Your task to perform on an android device: Add "razer huntsman" to the cart on bestbuy.com Image 0: 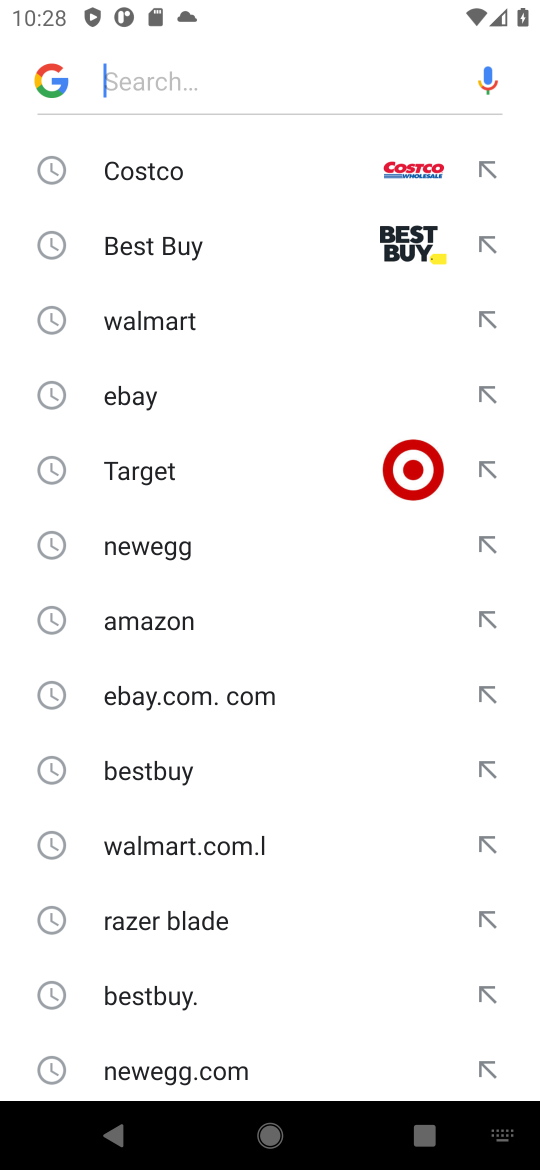
Step 0: press home button
Your task to perform on an android device: Add "razer huntsman" to the cart on bestbuy.com Image 1: 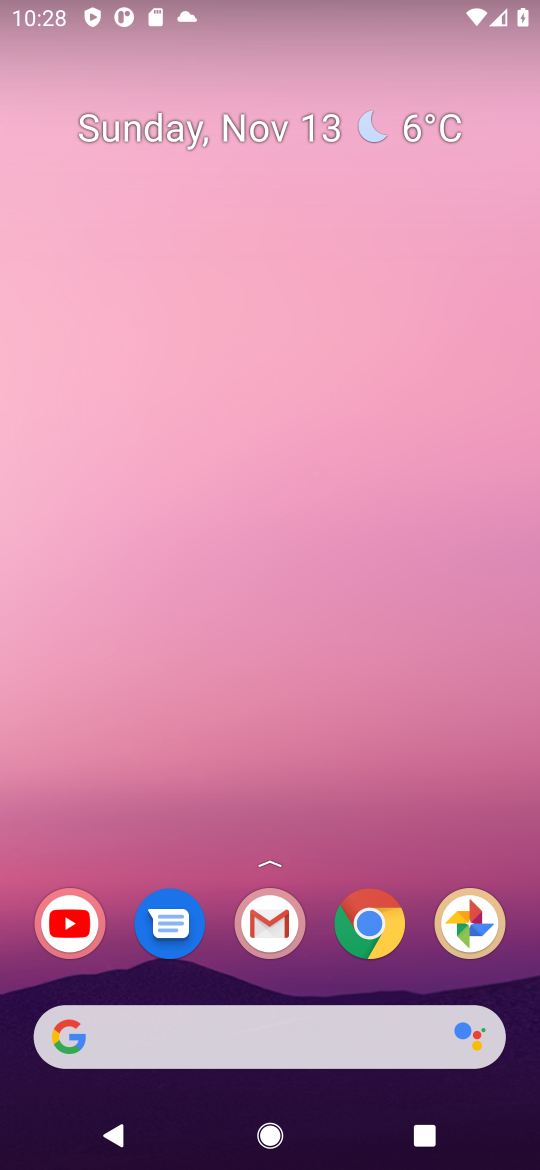
Step 1: click (363, 915)
Your task to perform on an android device: Add "razer huntsman" to the cart on bestbuy.com Image 2: 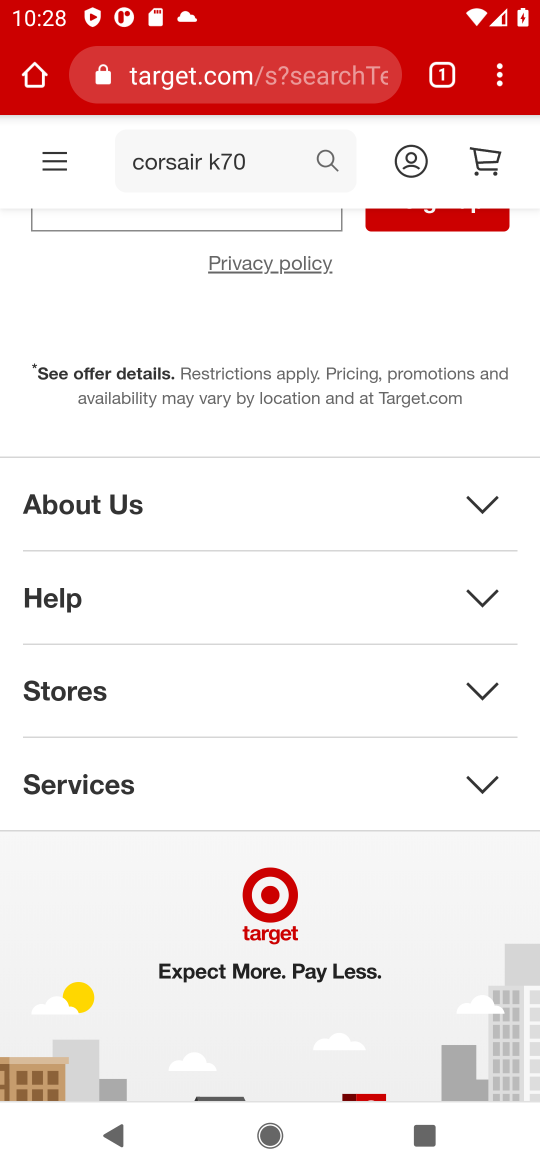
Step 2: click (299, 52)
Your task to perform on an android device: Add "razer huntsman" to the cart on bestbuy.com Image 3: 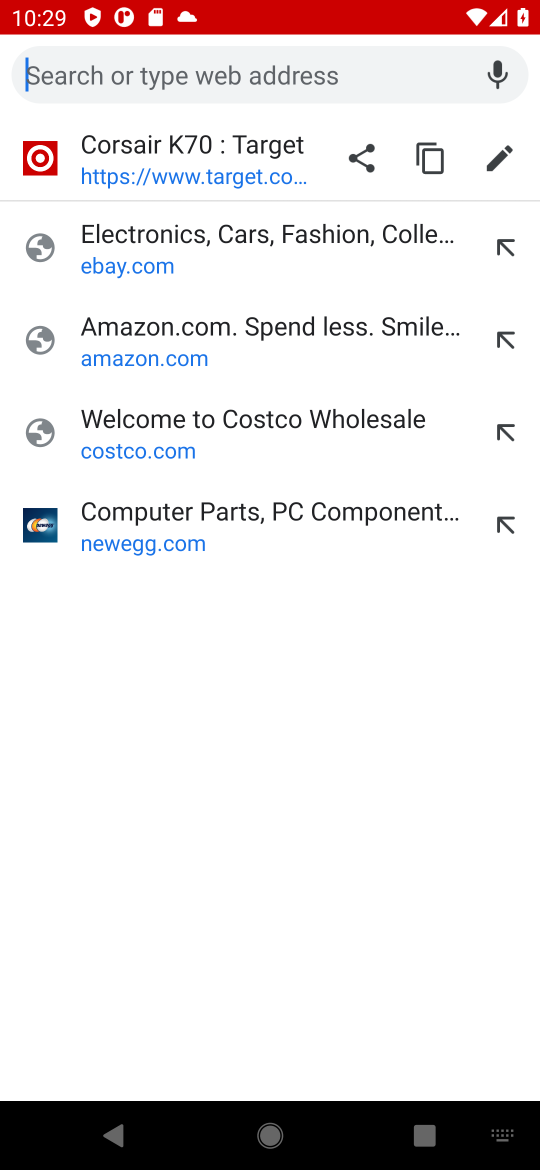
Step 3: type "bestbuy.com"
Your task to perform on an android device: Add "razer huntsman" to the cart on bestbuy.com Image 4: 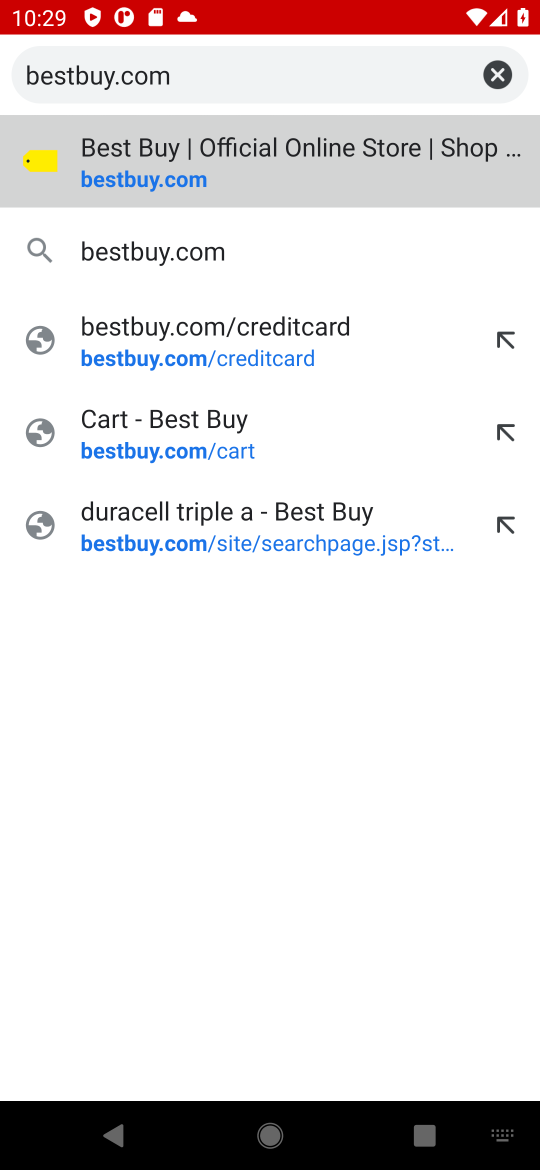
Step 4: press enter
Your task to perform on an android device: Add "razer huntsman" to the cart on bestbuy.com Image 5: 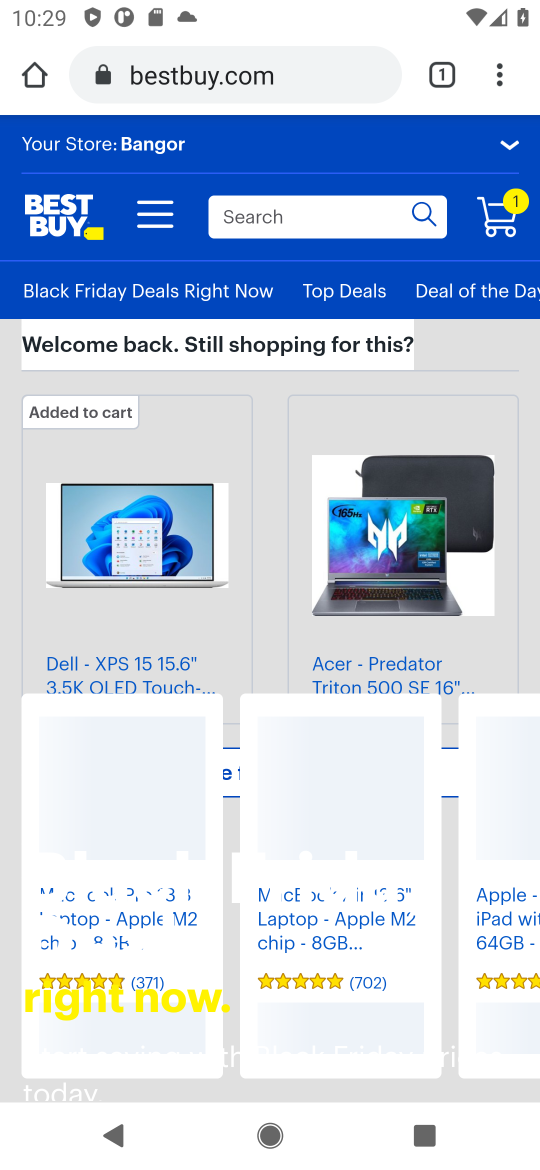
Step 5: click (342, 210)
Your task to perform on an android device: Add "razer huntsman" to the cart on bestbuy.com Image 6: 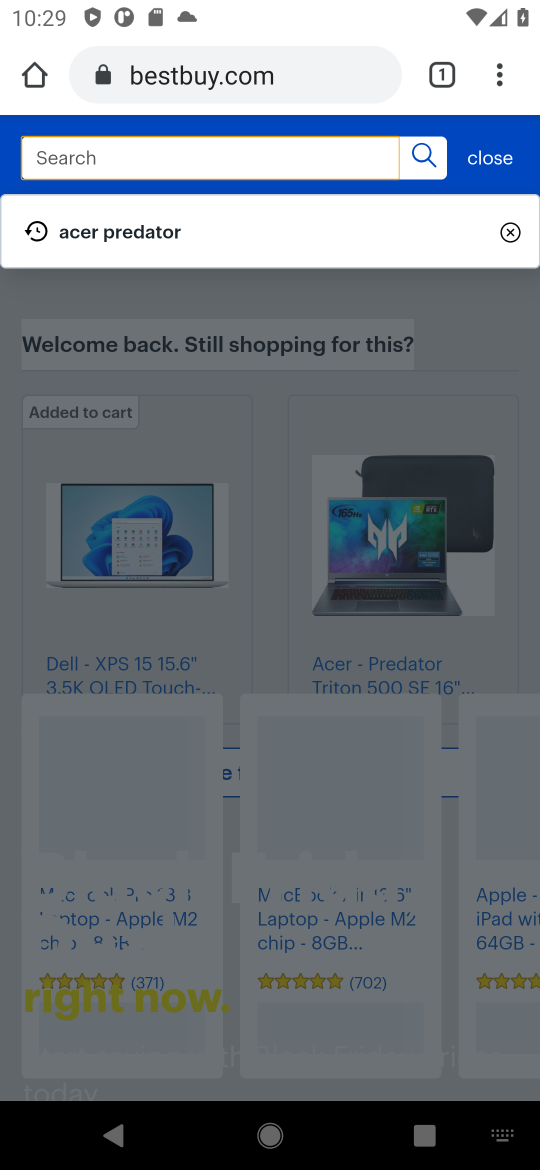
Step 6: press enter
Your task to perform on an android device: Add "razer huntsman" to the cart on bestbuy.com Image 7: 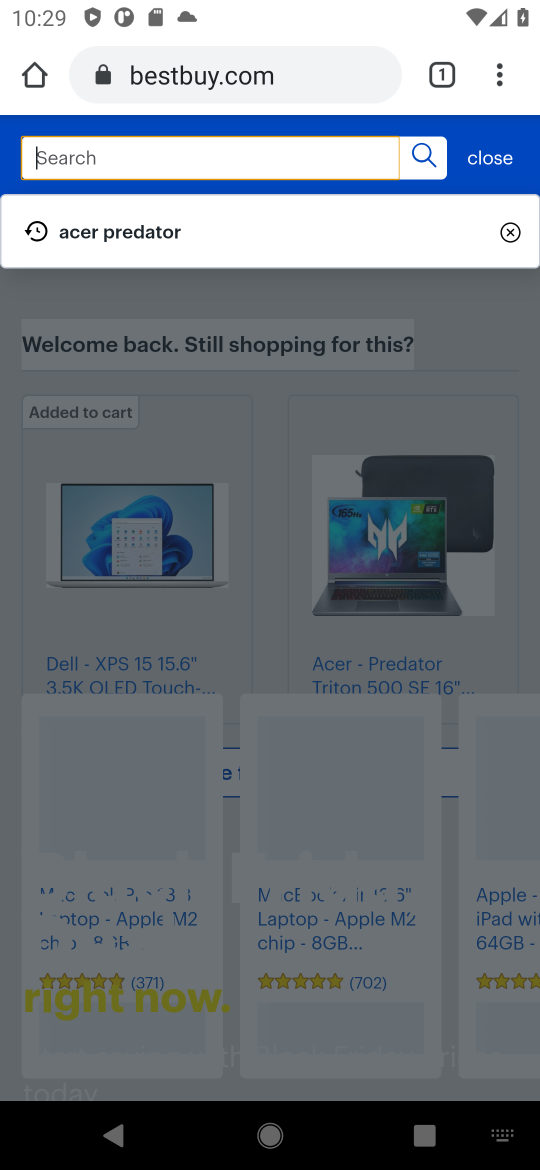
Step 7: type "razer huntsman"
Your task to perform on an android device: Add "razer huntsman" to the cart on bestbuy.com Image 8: 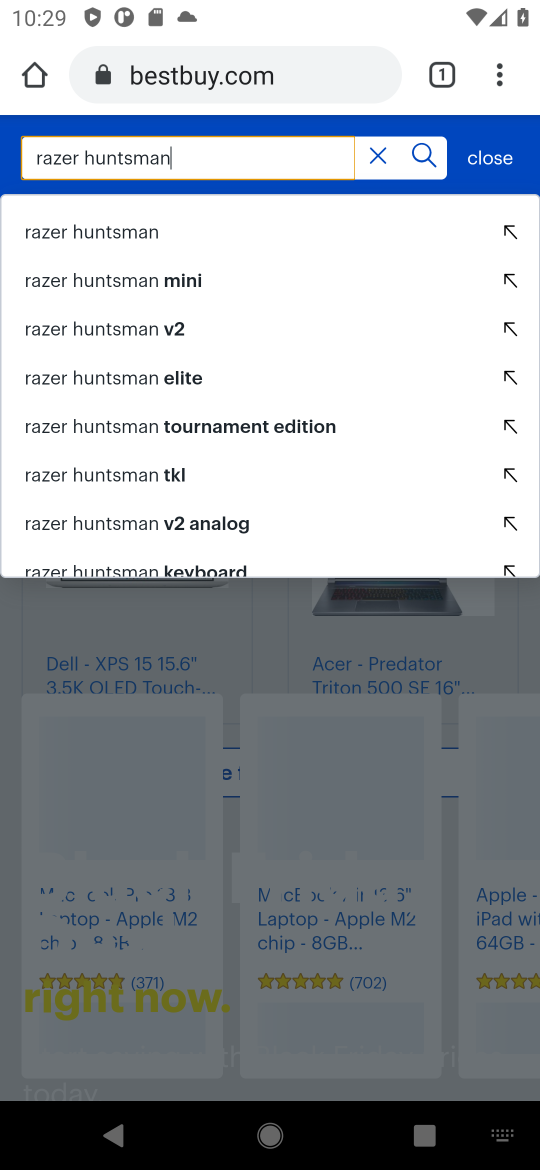
Step 8: click (107, 237)
Your task to perform on an android device: Add "razer huntsman" to the cart on bestbuy.com Image 9: 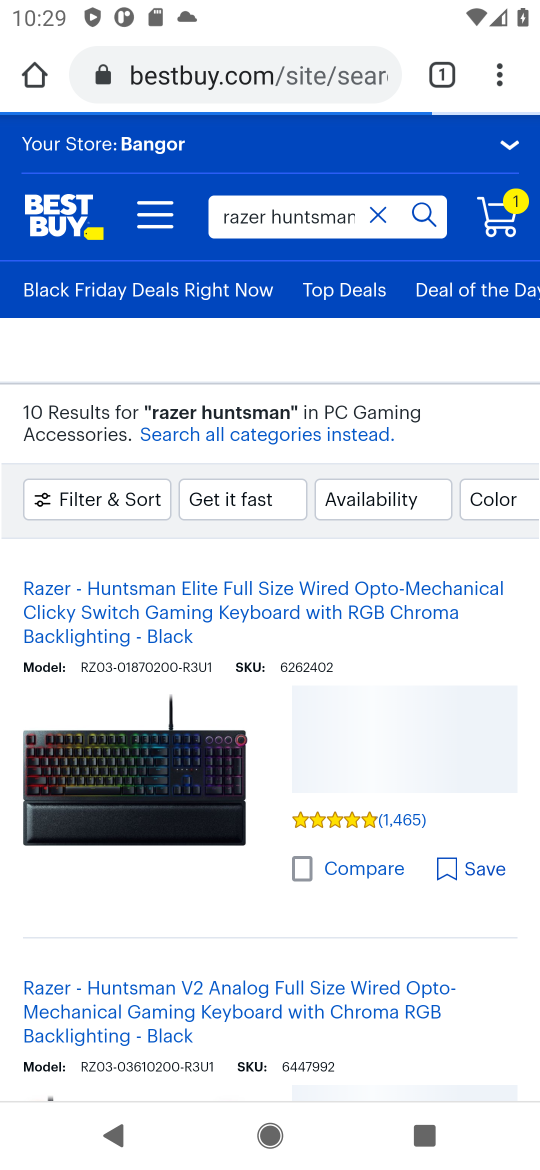
Step 9: click (108, 799)
Your task to perform on an android device: Add "razer huntsman" to the cart on bestbuy.com Image 10: 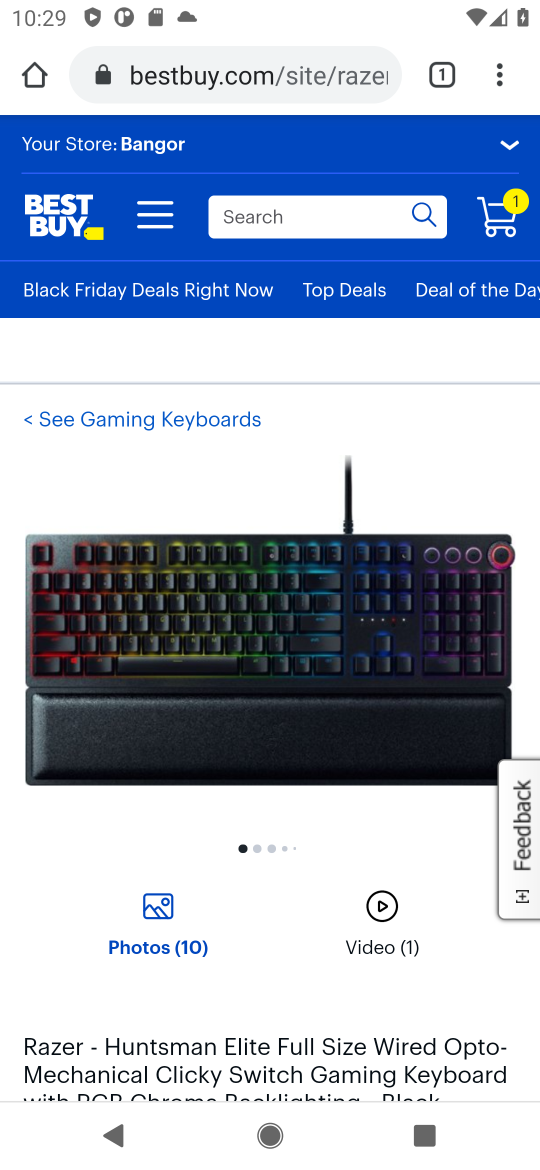
Step 10: drag from (412, 812) to (437, 372)
Your task to perform on an android device: Add "razer huntsman" to the cart on bestbuy.com Image 11: 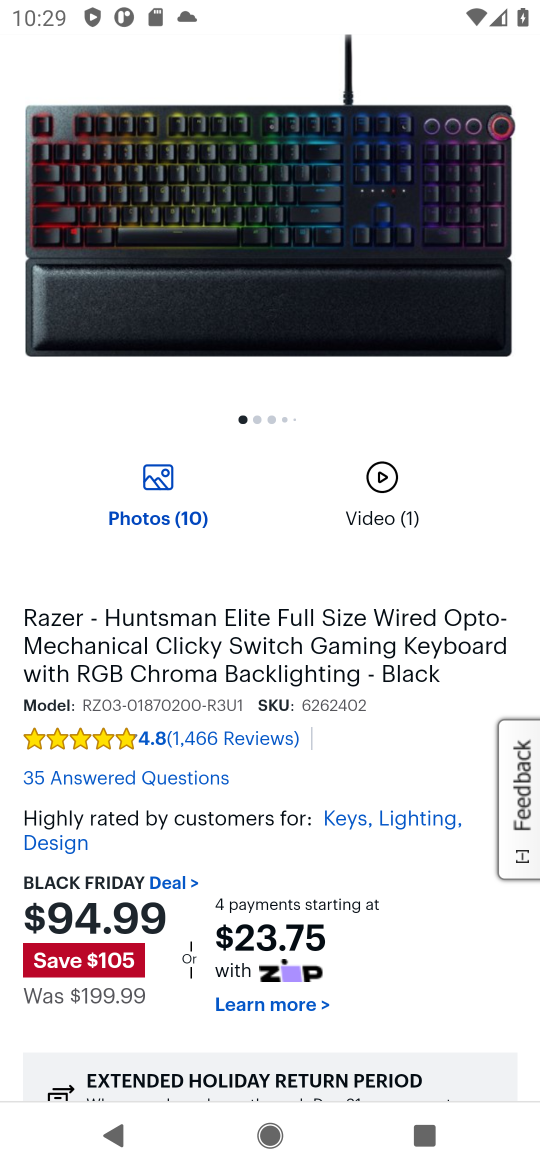
Step 11: drag from (353, 450) to (353, 255)
Your task to perform on an android device: Add "razer huntsman" to the cart on bestbuy.com Image 12: 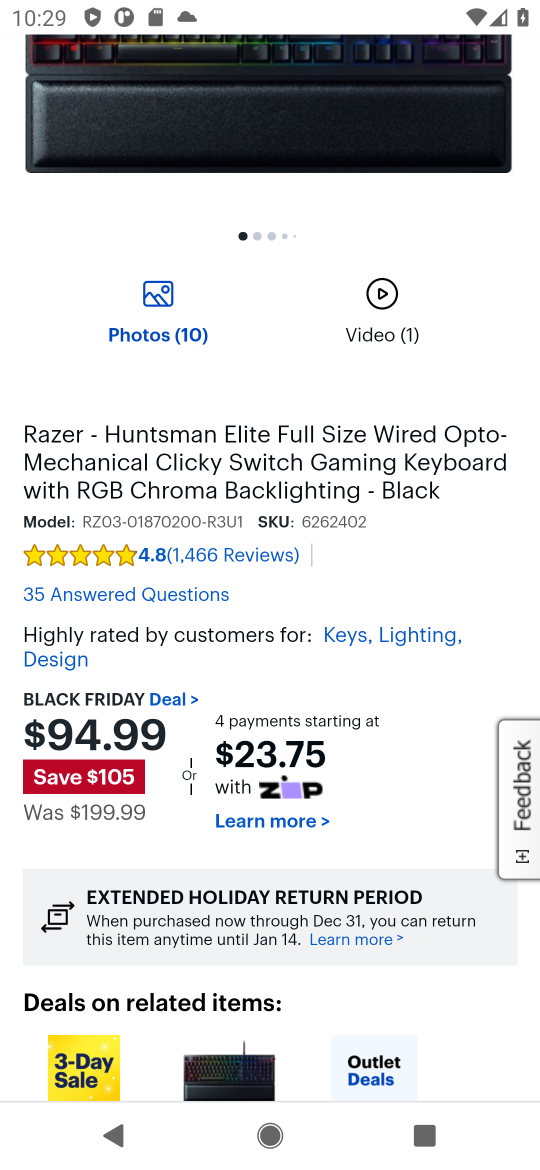
Step 12: drag from (433, 803) to (425, 345)
Your task to perform on an android device: Add "razer huntsman" to the cart on bestbuy.com Image 13: 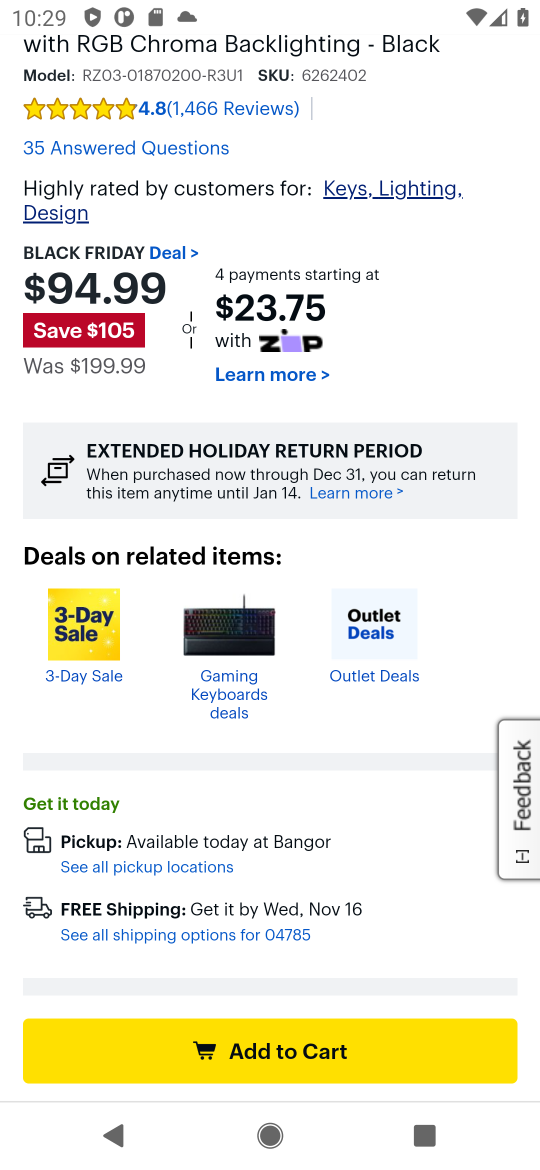
Step 13: drag from (413, 829) to (414, 513)
Your task to perform on an android device: Add "razer huntsman" to the cart on bestbuy.com Image 14: 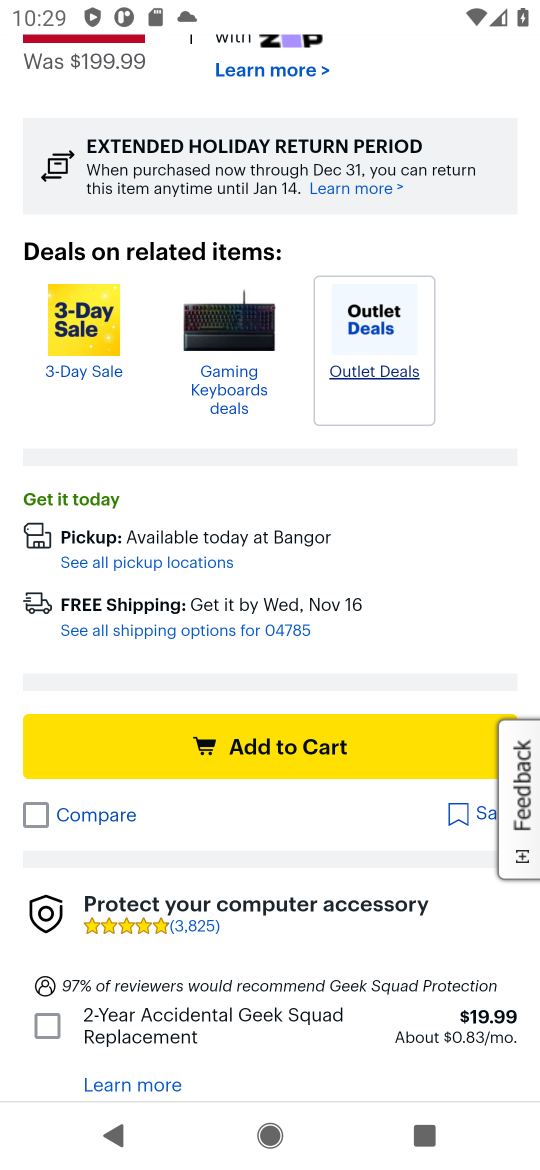
Step 14: click (279, 738)
Your task to perform on an android device: Add "razer huntsman" to the cart on bestbuy.com Image 15: 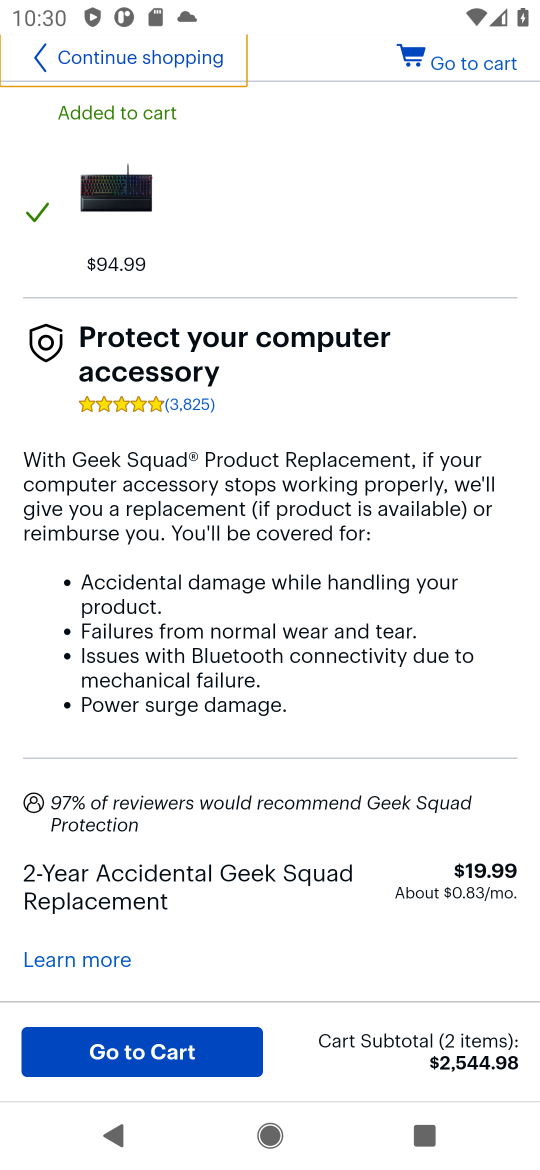
Step 15: task complete